Your task to perform on an android device: Go to wifi settings Image 0: 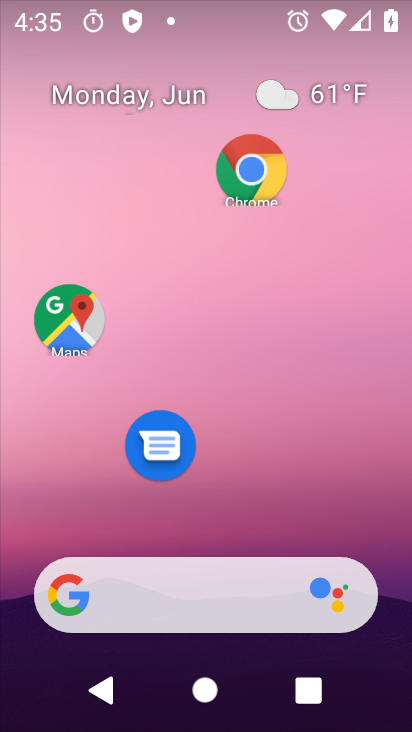
Step 0: drag from (244, 537) to (253, 100)
Your task to perform on an android device: Go to wifi settings Image 1: 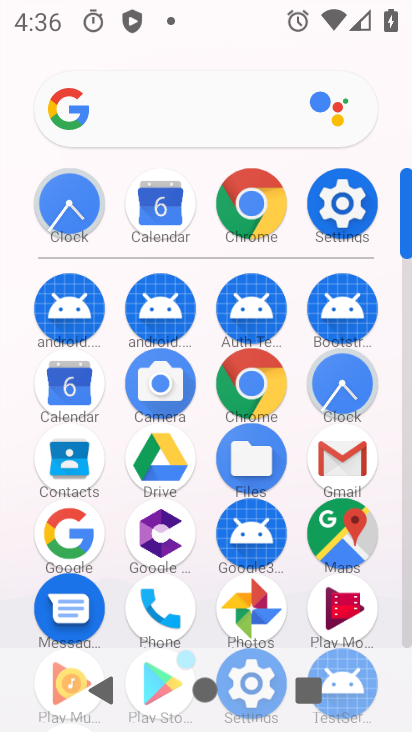
Step 1: click (337, 209)
Your task to perform on an android device: Go to wifi settings Image 2: 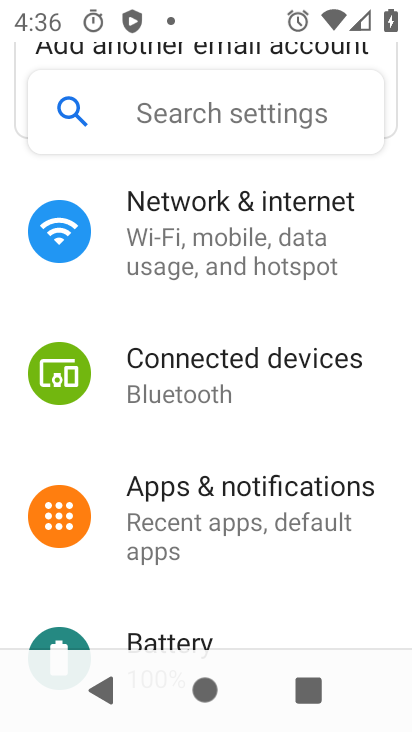
Step 2: click (217, 238)
Your task to perform on an android device: Go to wifi settings Image 3: 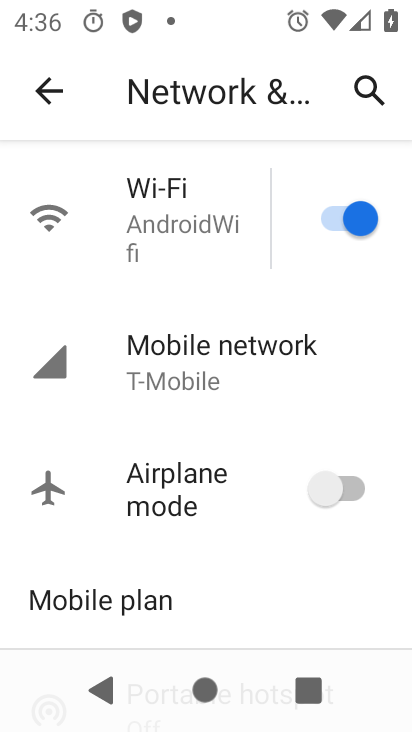
Step 3: click (210, 220)
Your task to perform on an android device: Go to wifi settings Image 4: 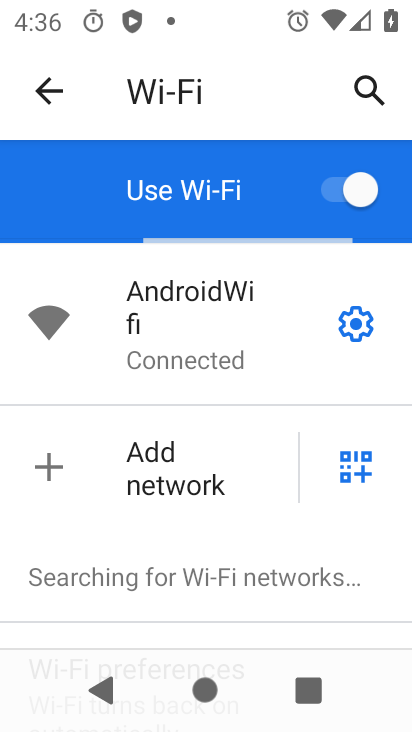
Step 4: click (209, 224)
Your task to perform on an android device: Go to wifi settings Image 5: 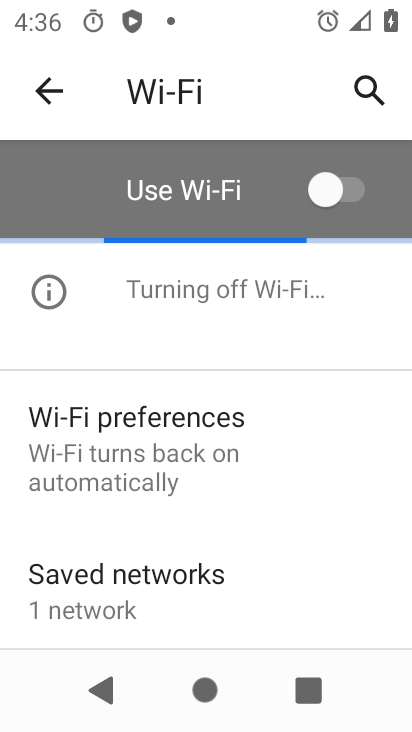
Step 5: task complete